Your task to perform on an android device: Turn off the flashlight Image 0: 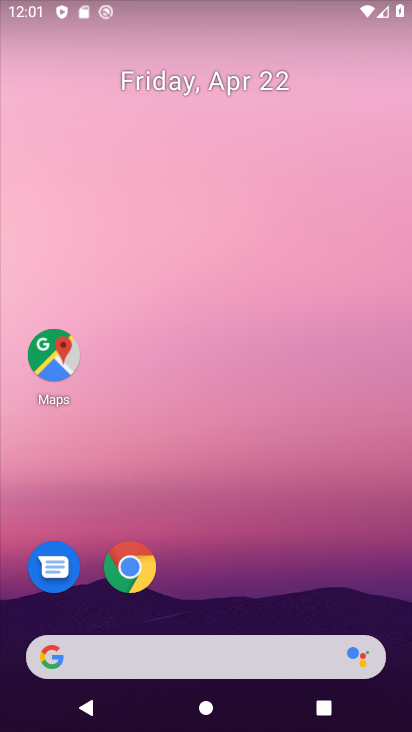
Step 0: drag from (230, 595) to (241, 106)
Your task to perform on an android device: Turn off the flashlight Image 1: 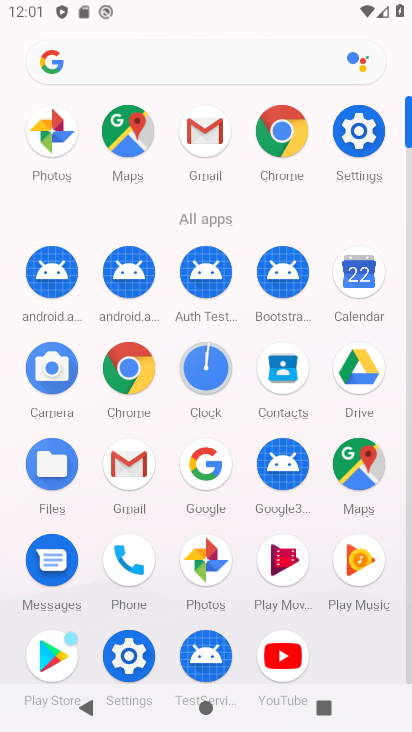
Step 1: click (353, 147)
Your task to perform on an android device: Turn off the flashlight Image 2: 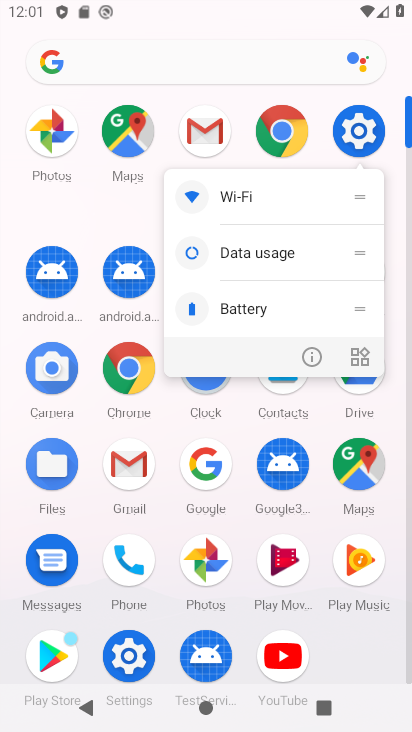
Step 2: click (362, 141)
Your task to perform on an android device: Turn off the flashlight Image 3: 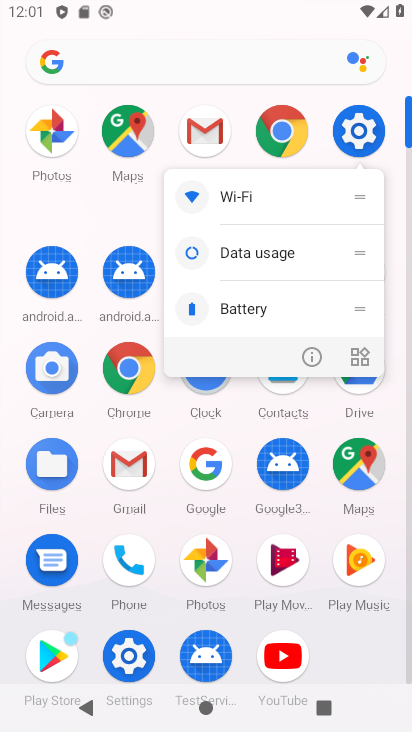
Step 3: click (362, 135)
Your task to perform on an android device: Turn off the flashlight Image 4: 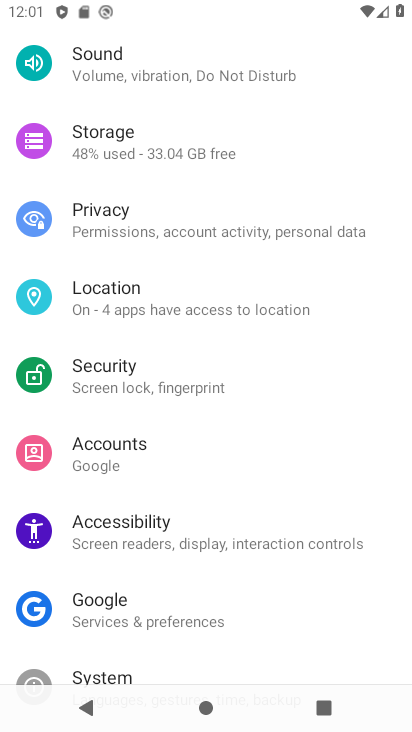
Step 4: drag from (246, 160) to (261, 523)
Your task to perform on an android device: Turn off the flashlight Image 5: 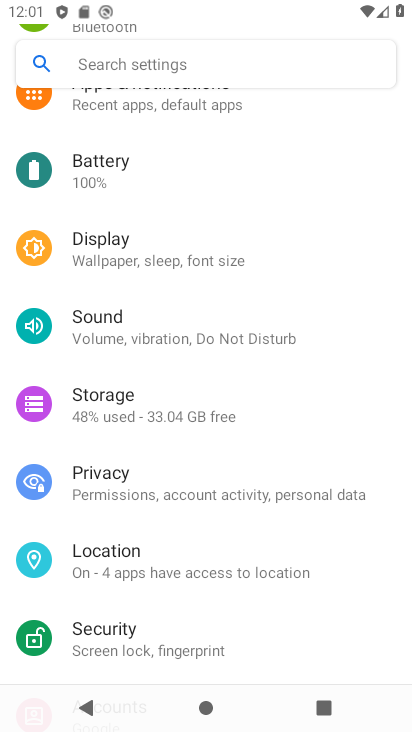
Step 5: click (203, 61)
Your task to perform on an android device: Turn off the flashlight Image 6: 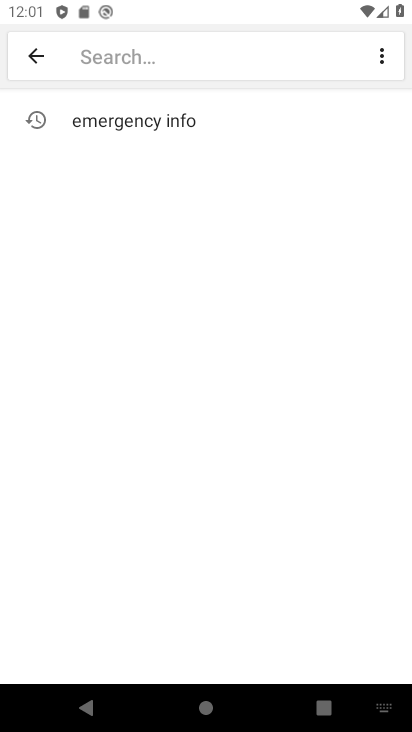
Step 6: type "Flashlight"
Your task to perform on an android device: Turn off the flashlight Image 7: 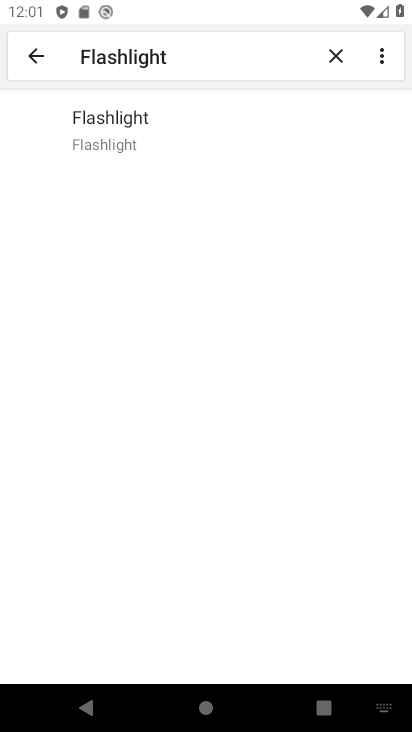
Step 7: click (175, 135)
Your task to perform on an android device: Turn off the flashlight Image 8: 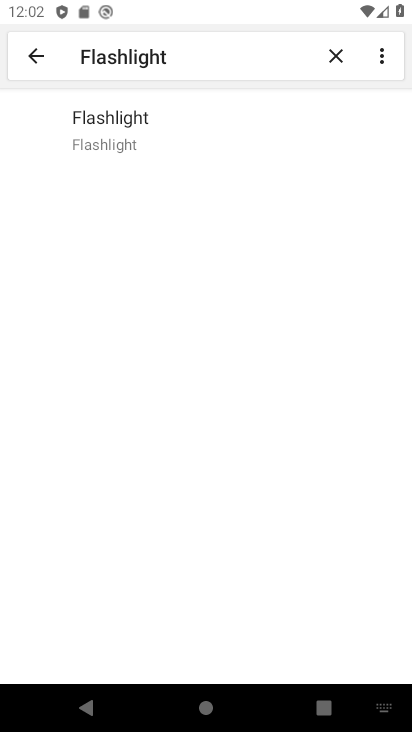
Step 8: click (123, 139)
Your task to perform on an android device: Turn off the flashlight Image 9: 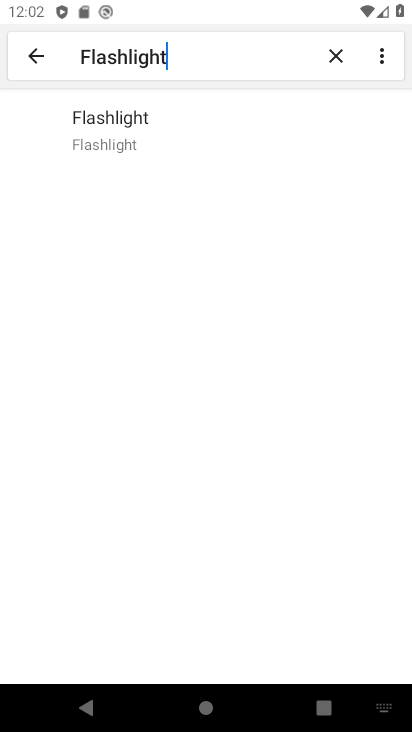
Step 9: task complete